Your task to perform on an android device: Open Chrome and go to the settings page Image 0: 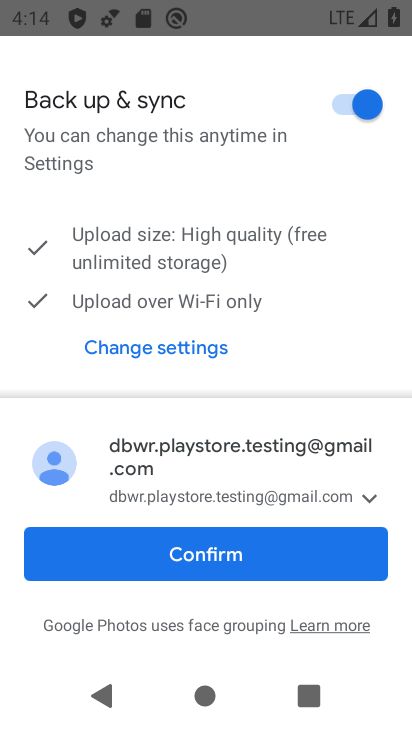
Step 0: press home button
Your task to perform on an android device: Open Chrome and go to the settings page Image 1: 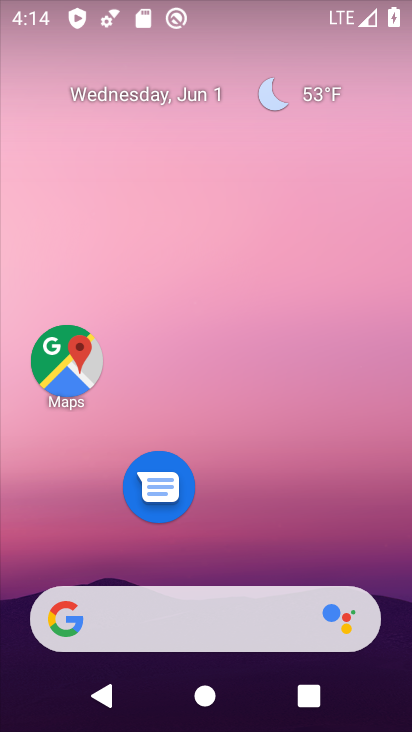
Step 1: drag from (228, 534) to (215, 8)
Your task to perform on an android device: Open Chrome and go to the settings page Image 2: 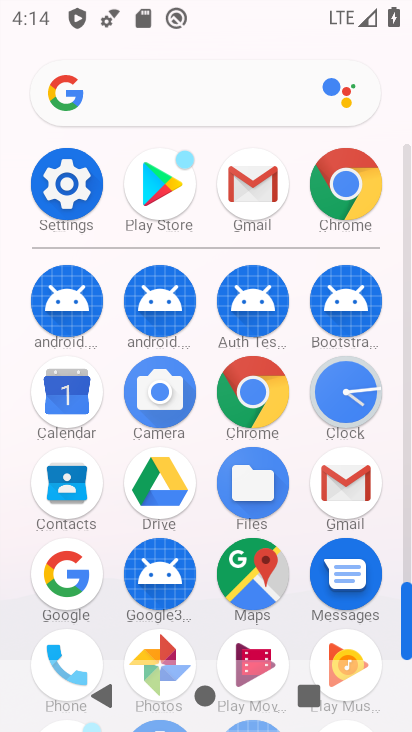
Step 2: click (346, 173)
Your task to perform on an android device: Open Chrome and go to the settings page Image 3: 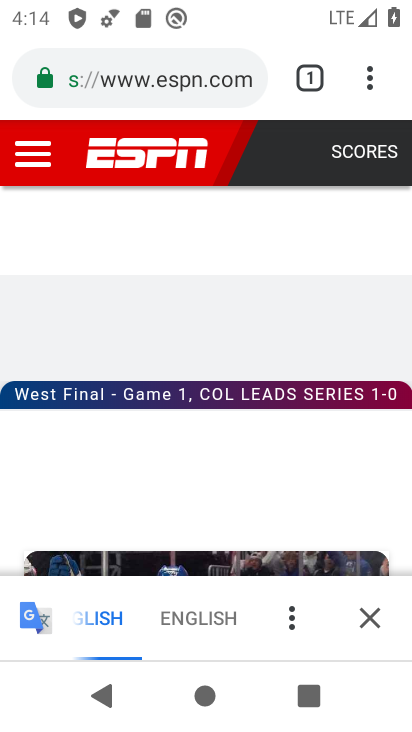
Step 3: click (364, 95)
Your task to perform on an android device: Open Chrome and go to the settings page Image 4: 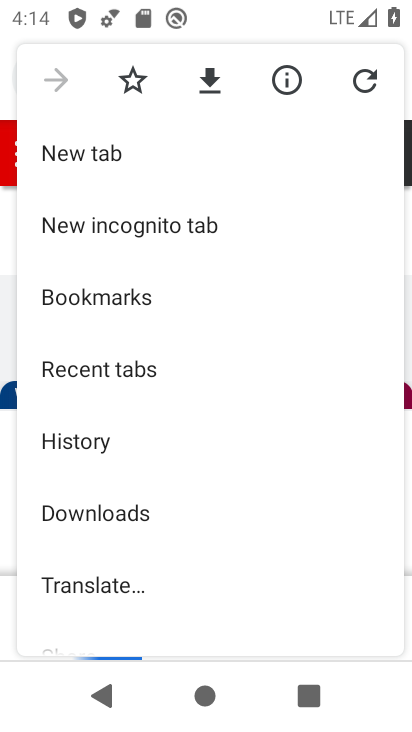
Step 4: drag from (117, 555) to (182, 155)
Your task to perform on an android device: Open Chrome and go to the settings page Image 5: 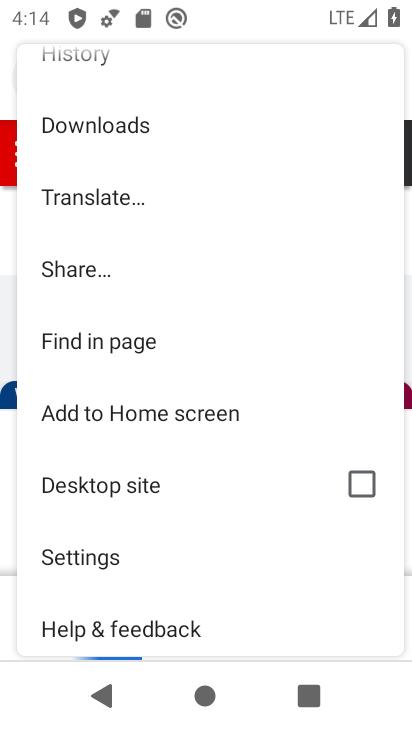
Step 5: click (109, 565)
Your task to perform on an android device: Open Chrome and go to the settings page Image 6: 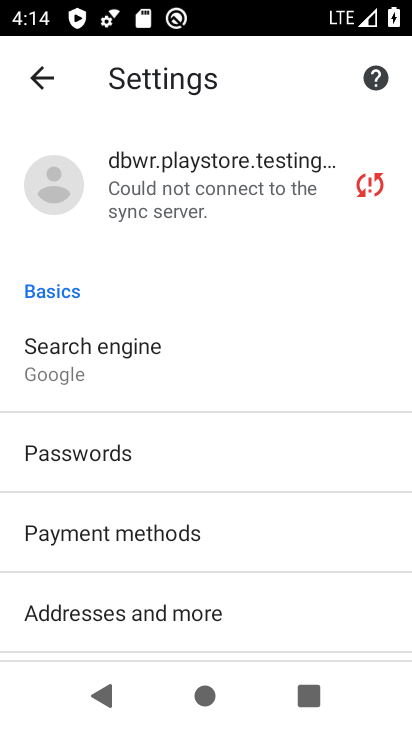
Step 6: task complete